Your task to perform on an android device: toggle data saver in the chrome app Image 0: 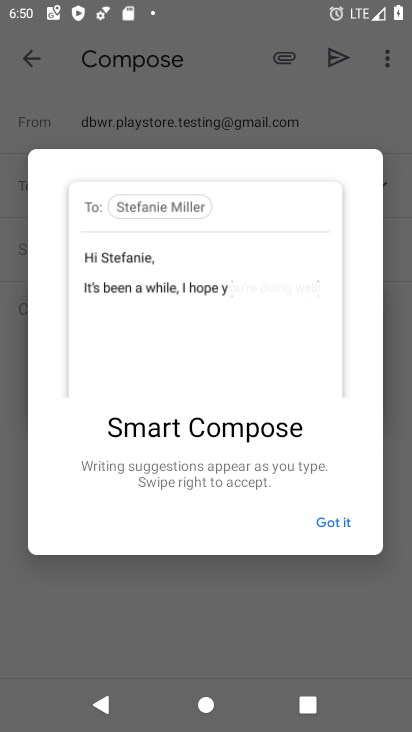
Step 0: press home button
Your task to perform on an android device: toggle data saver in the chrome app Image 1: 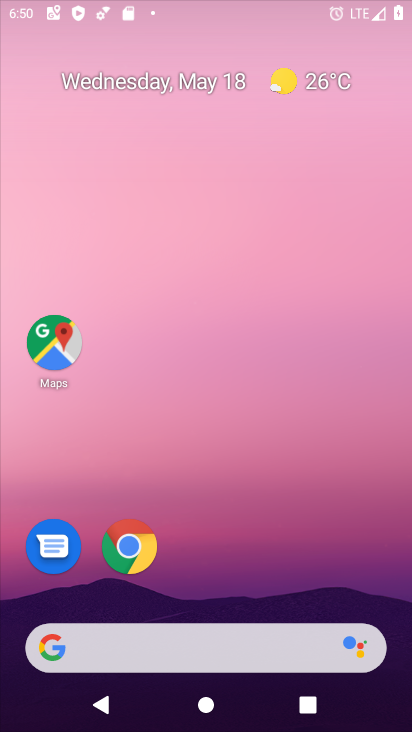
Step 1: drag from (384, 621) to (288, 78)
Your task to perform on an android device: toggle data saver in the chrome app Image 2: 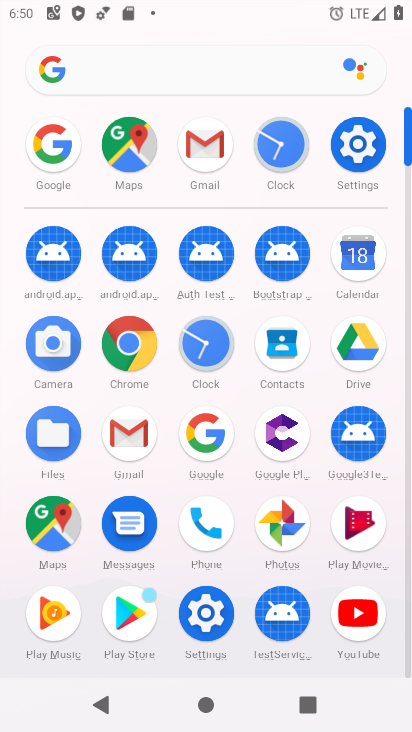
Step 2: click (136, 362)
Your task to perform on an android device: toggle data saver in the chrome app Image 3: 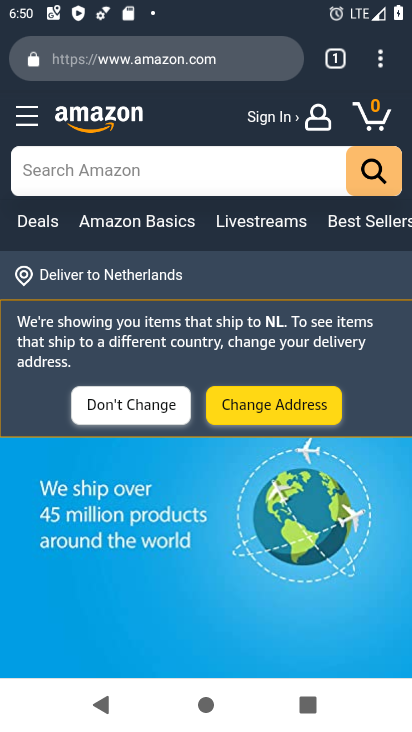
Step 3: press back button
Your task to perform on an android device: toggle data saver in the chrome app Image 4: 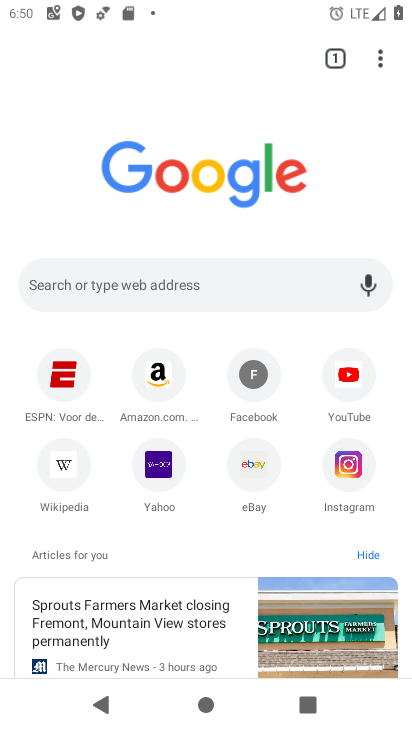
Step 4: click (379, 50)
Your task to perform on an android device: toggle data saver in the chrome app Image 5: 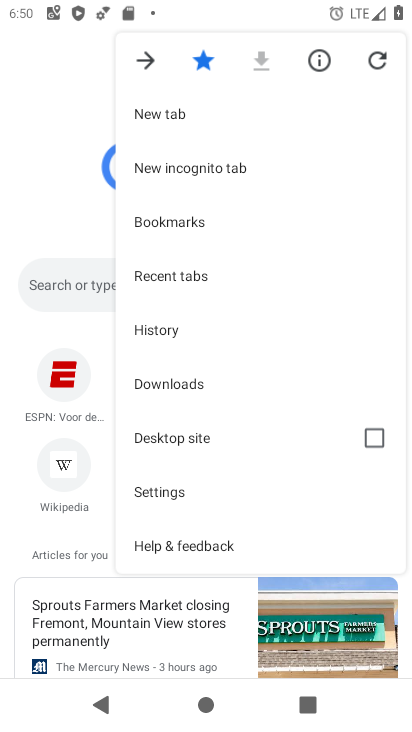
Step 5: click (226, 494)
Your task to perform on an android device: toggle data saver in the chrome app Image 6: 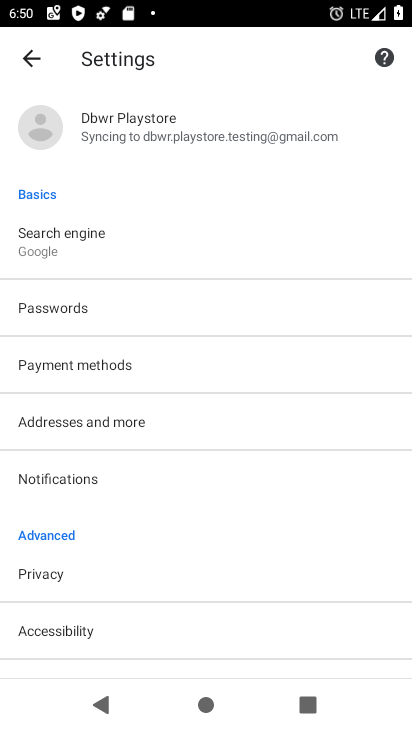
Step 6: drag from (161, 638) to (232, 253)
Your task to perform on an android device: toggle data saver in the chrome app Image 7: 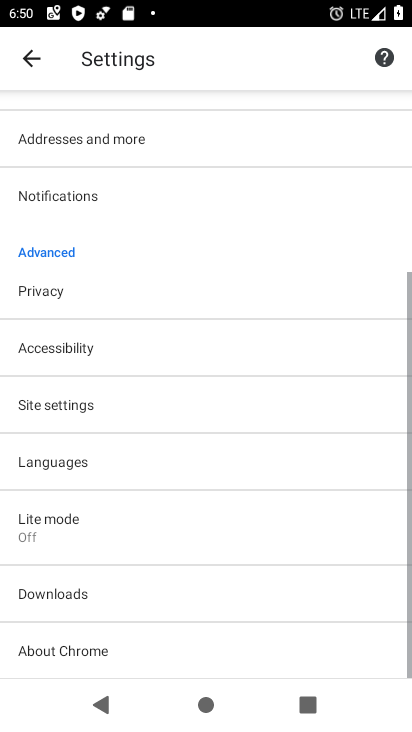
Step 7: click (229, 156)
Your task to perform on an android device: toggle data saver in the chrome app Image 8: 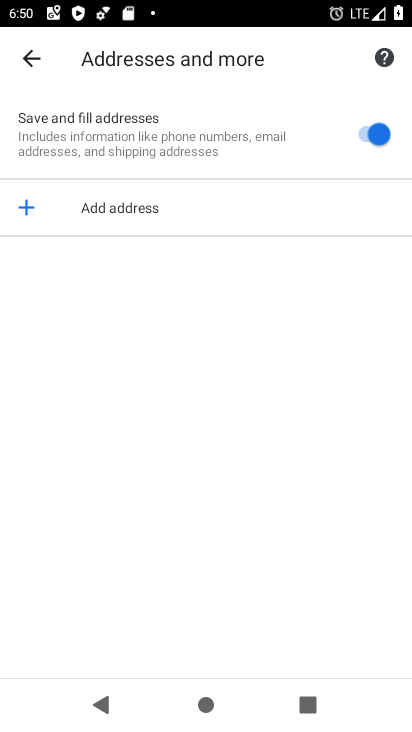
Step 8: click (154, 532)
Your task to perform on an android device: toggle data saver in the chrome app Image 9: 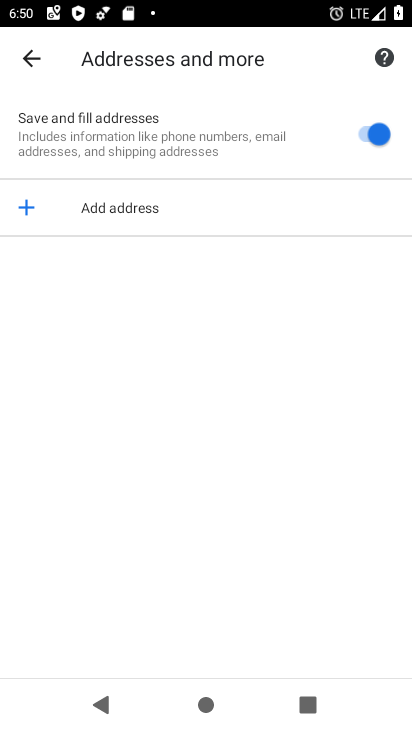
Step 9: press back button
Your task to perform on an android device: toggle data saver in the chrome app Image 10: 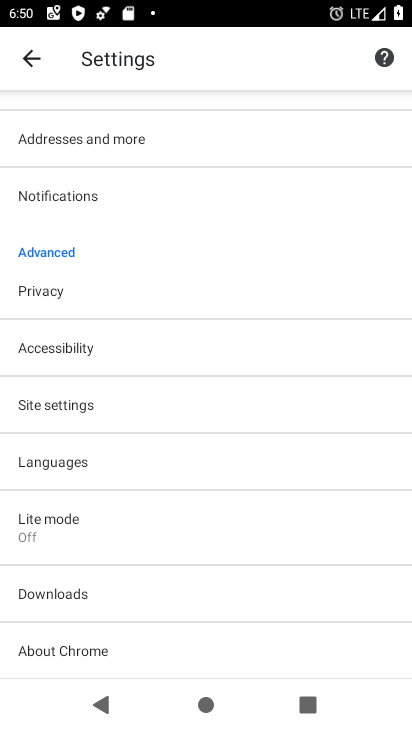
Step 10: click (115, 551)
Your task to perform on an android device: toggle data saver in the chrome app Image 11: 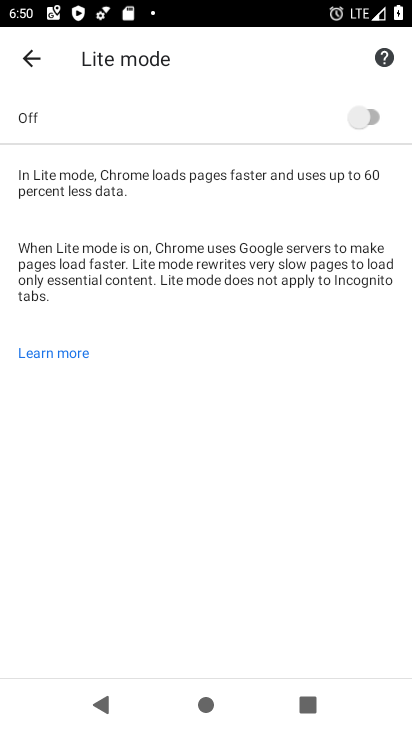
Step 11: click (334, 113)
Your task to perform on an android device: toggle data saver in the chrome app Image 12: 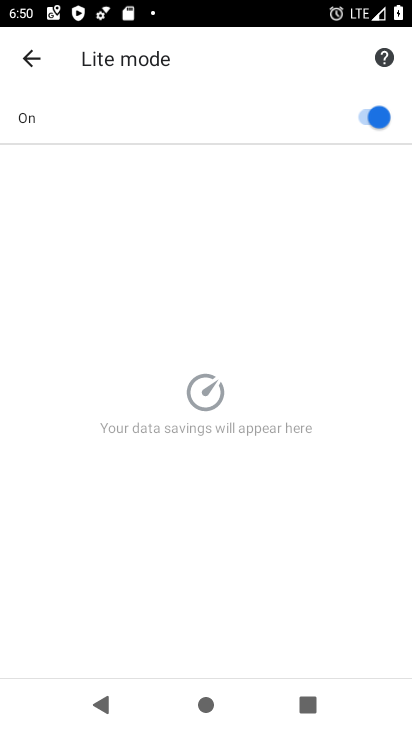
Step 12: task complete